Your task to perform on an android device: Open the Play Movies app and select the watchlist tab. Image 0: 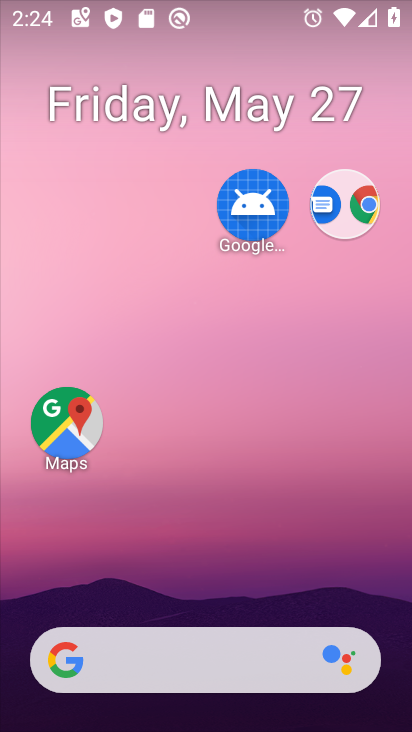
Step 0: drag from (310, 440) to (316, 217)
Your task to perform on an android device: Open the Play Movies app and select the watchlist tab. Image 1: 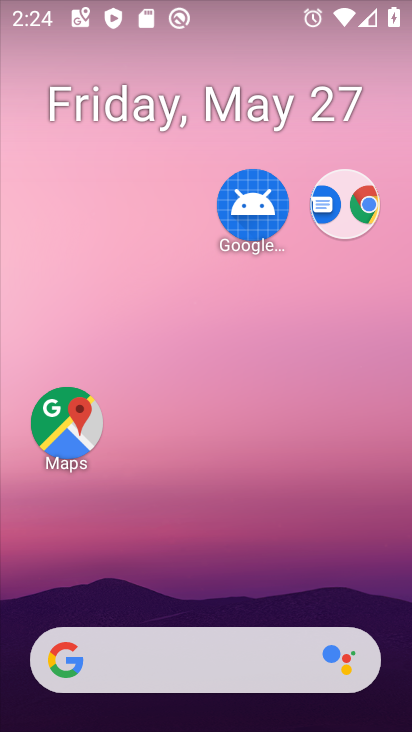
Step 1: drag from (277, 613) to (268, 281)
Your task to perform on an android device: Open the Play Movies app and select the watchlist tab. Image 2: 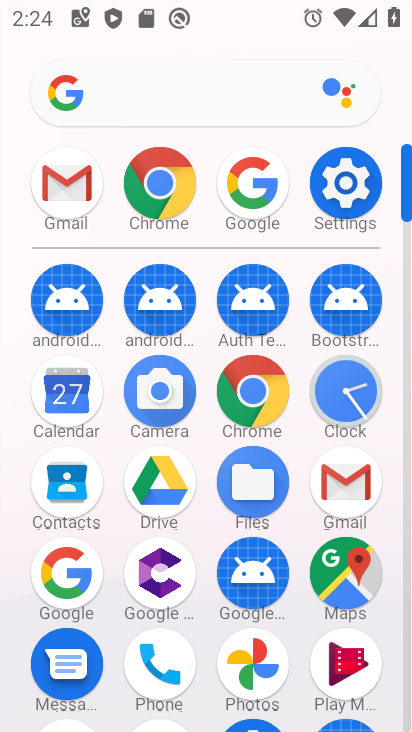
Step 2: drag from (273, 591) to (279, 327)
Your task to perform on an android device: Open the Play Movies app and select the watchlist tab. Image 3: 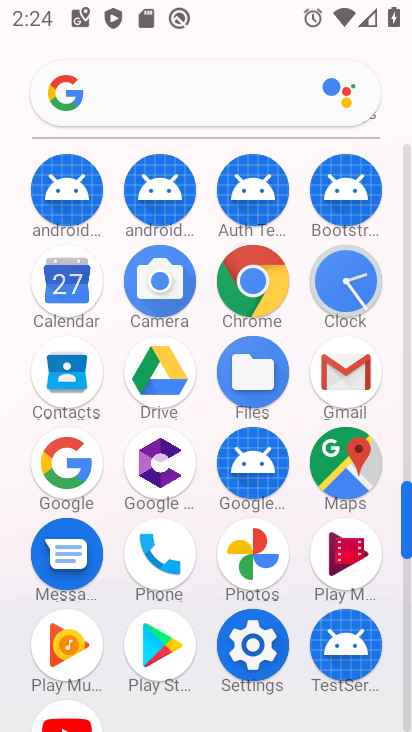
Step 3: click (345, 536)
Your task to perform on an android device: Open the Play Movies app and select the watchlist tab. Image 4: 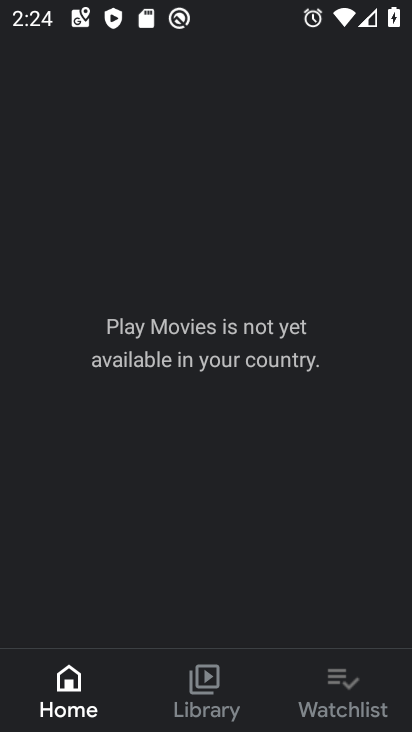
Step 4: click (332, 676)
Your task to perform on an android device: Open the Play Movies app and select the watchlist tab. Image 5: 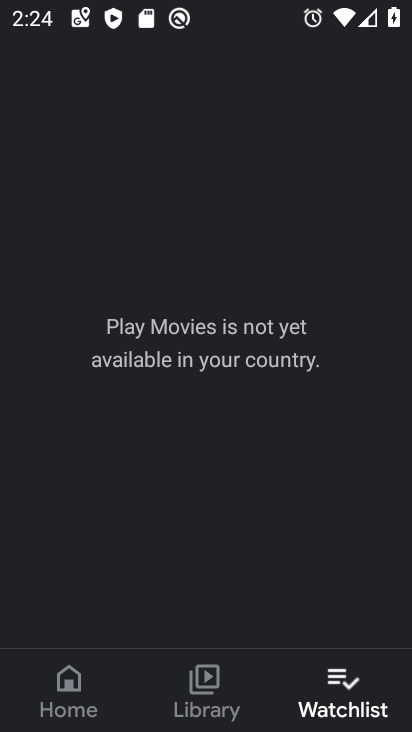
Step 5: task complete